Your task to perform on an android device: Go to privacy settings Image 0: 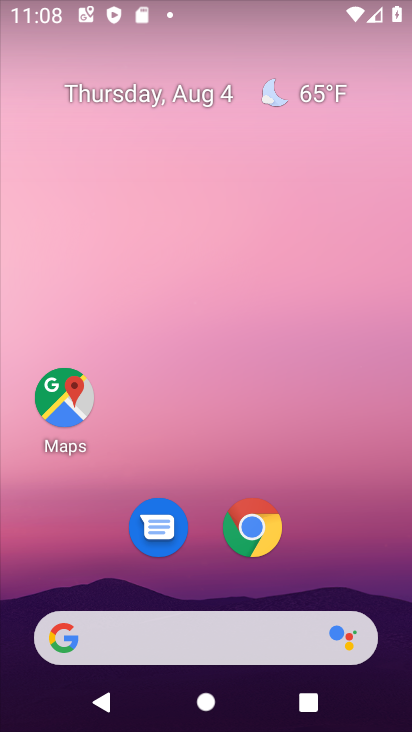
Step 0: drag from (180, 682) to (316, 158)
Your task to perform on an android device: Go to privacy settings Image 1: 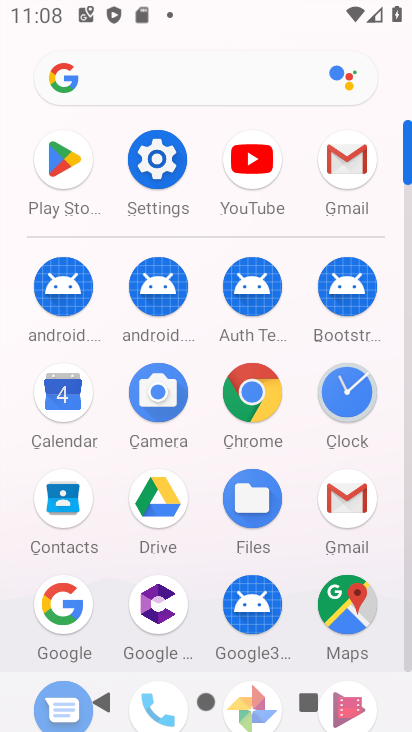
Step 1: click (143, 161)
Your task to perform on an android device: Go to privacy settings Image 2: 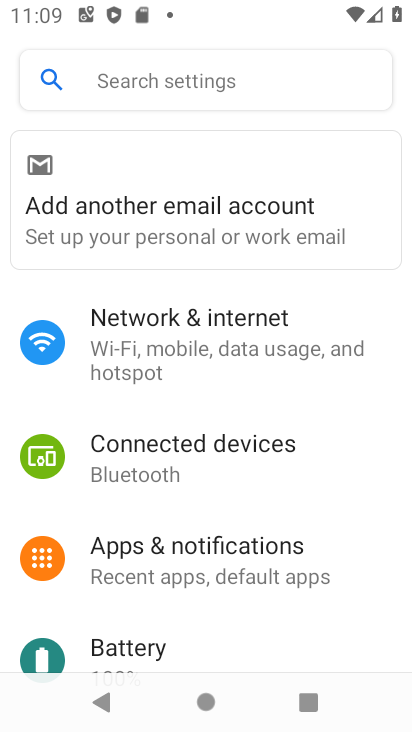
Step 2: drag from (199, 625) to (263, 42)
Your task to perform on an android device: Go to privacy settings Image 3: 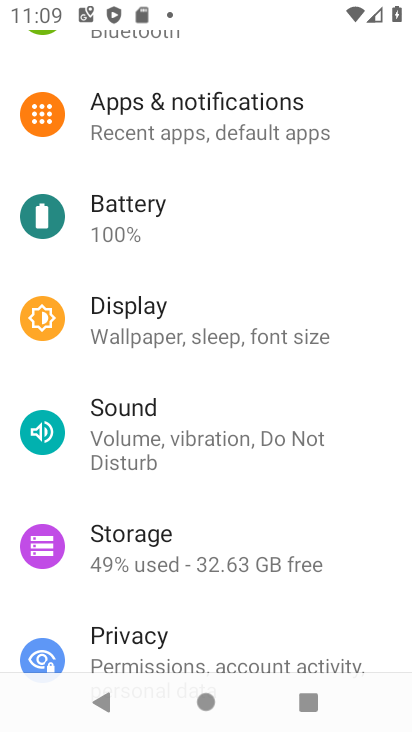
Step 3: click (196, 656)
Your task to perform on an android device: Go to privacy settings Image 4: 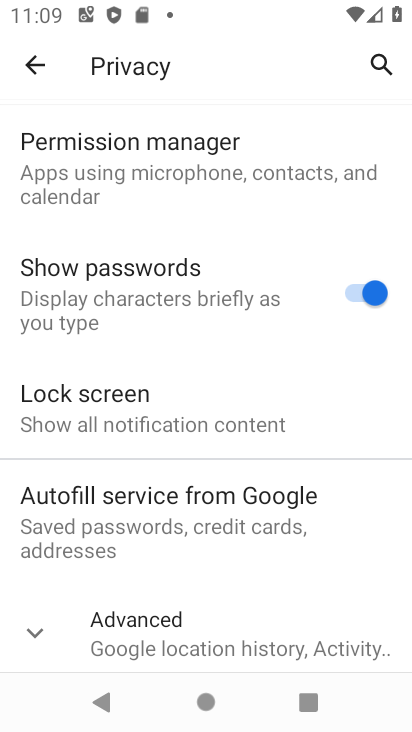
Step 4: task complete